Your task to perform on an android device: change notification settings in the gmail app Image 0: 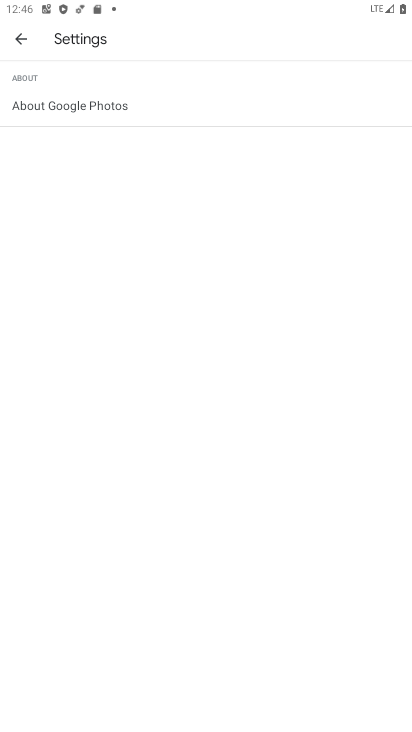
Step 0: press home button
Your task to perform on an android device: change notification settings in the gmail app Image 1: 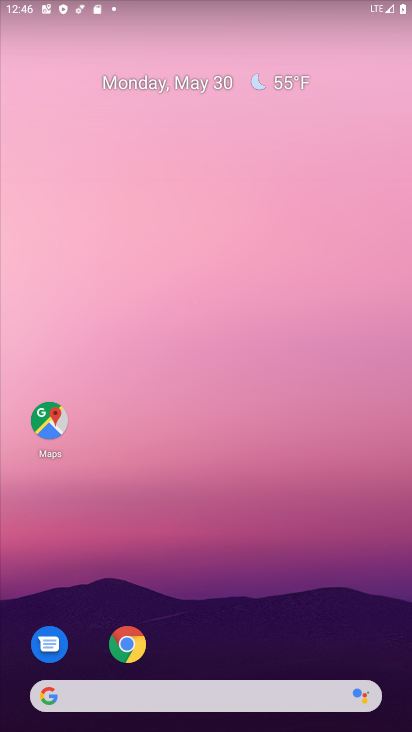
Step 1: drag from (269, 485) to (260, 209)
Your task to perform on an android device: change notification settings in the gmail app Image 2: 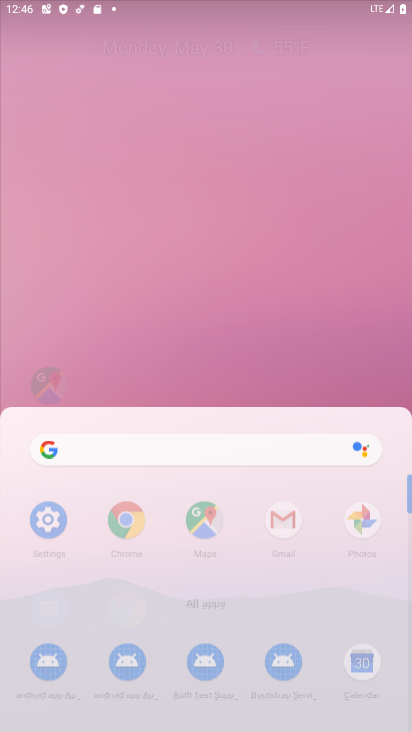
Step 2: click (260, 191)
Your task to perform on an android device: change notification settings in the gmail app Image 3: 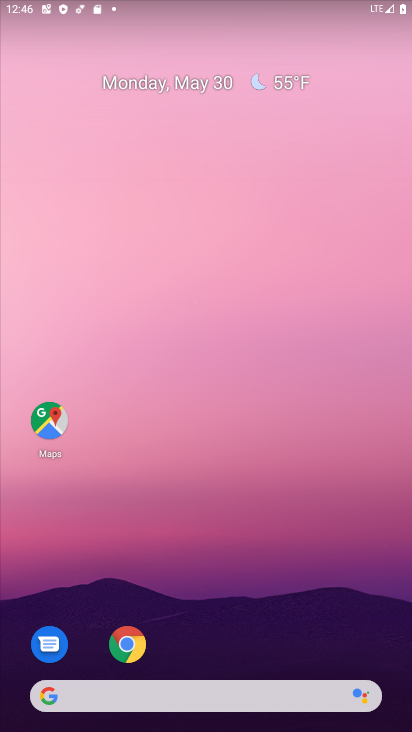
Step 3: drag from (254, 623) to (250, 5)
Your task to perform on an android device: change notification settings in the gmail app Image 4: 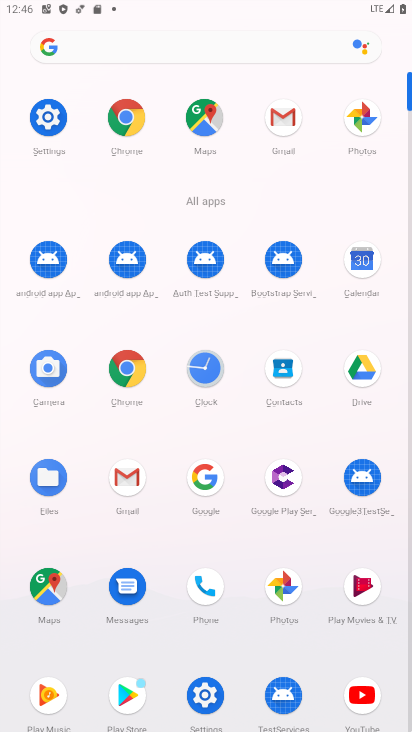
Step 4: click (272, 131)
Your task to perform on an android device: change notification settings in the gmail app Image 5: 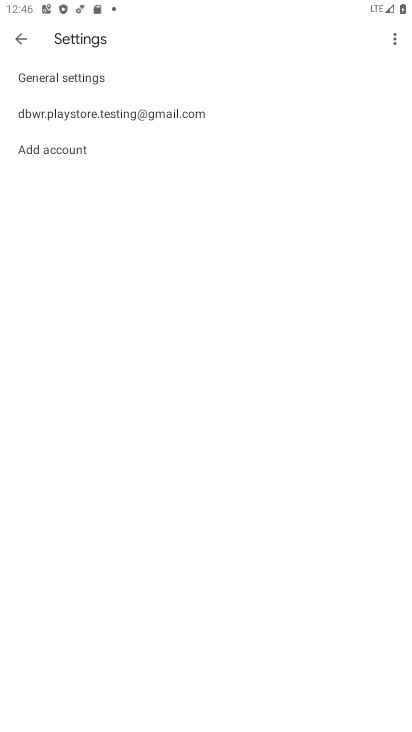
Step 5: click (115, 86)
Your task to perform on an android device: change notification settings in the gmail app Image 6: 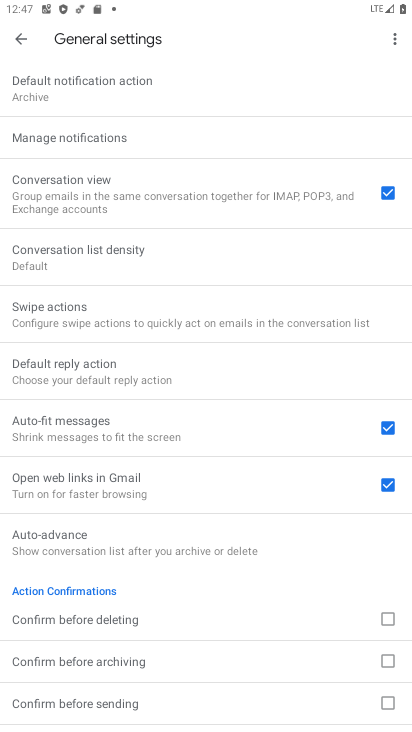
Step 6: click (124, 134)
Your task to perform on an android device: change notification settings in the gmail app Image 7: 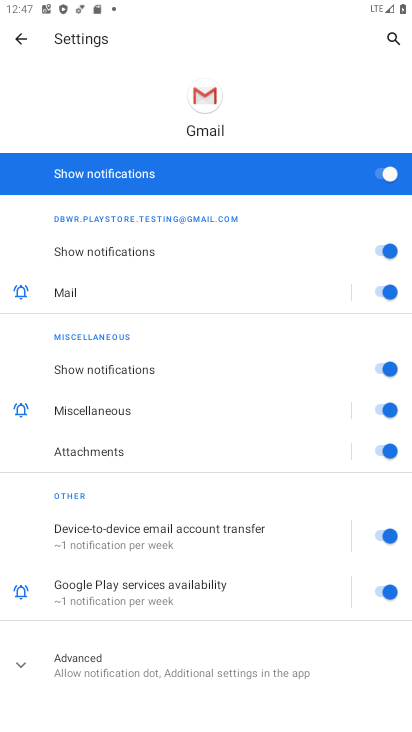
Step 7: click (312, 165)
Your task to perform on an android device: change notification settings in the gmail app Image 8: 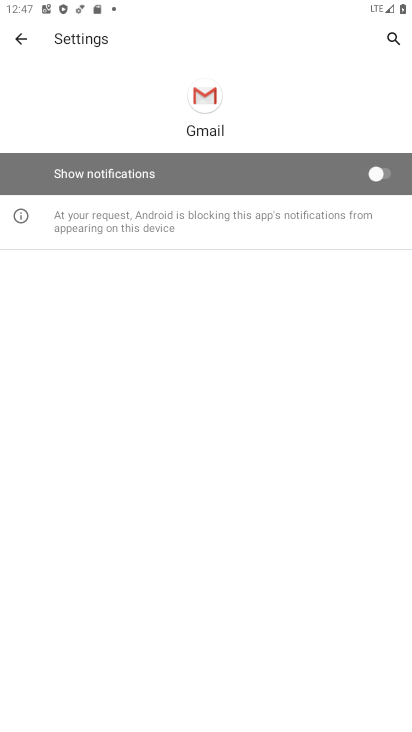
Step 8: task complete